Your task to perform on an android device: Go to Maps Image 0: 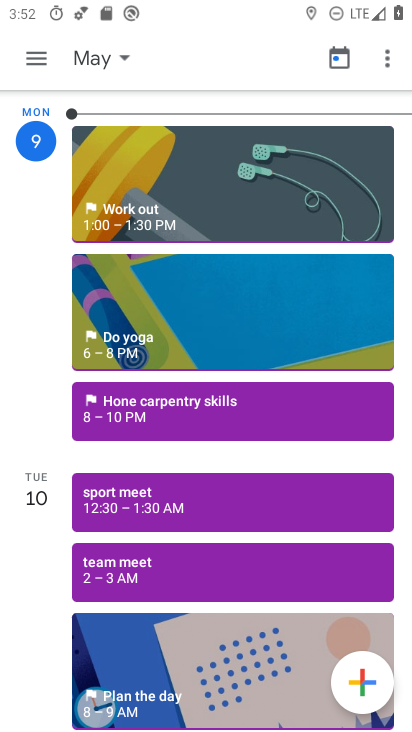
Step 0: press home button
Your task to perform on an android device: Go to Maps Image 1: 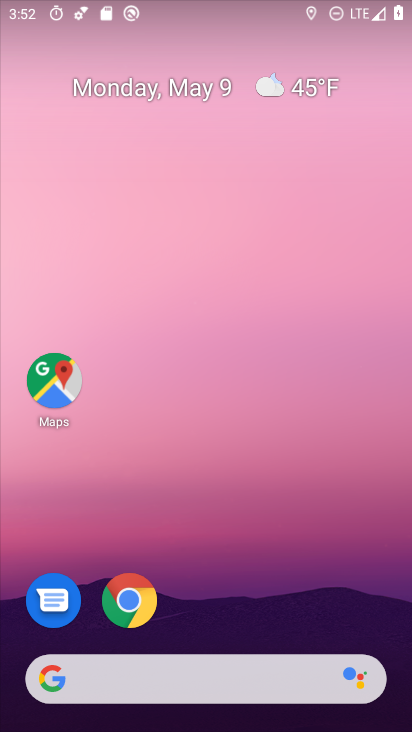
Step 1: drag from (206, 598) to (209, 47)
Your task to perform on an android device: Go to Maps Image 2: 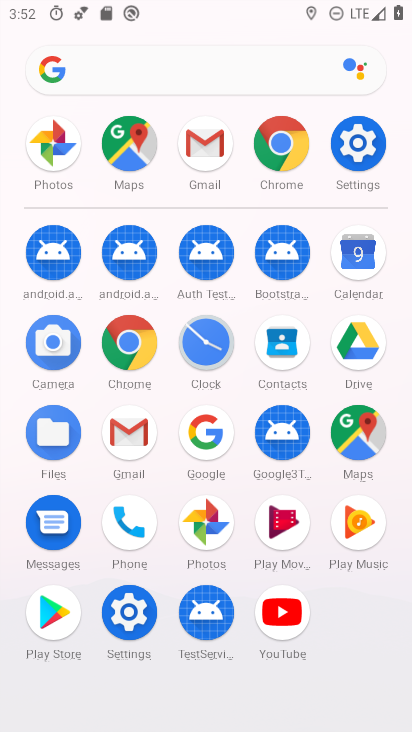
Step 2: click (368, 434)
Your task to perform on an android device: Go to Maps Image 3: 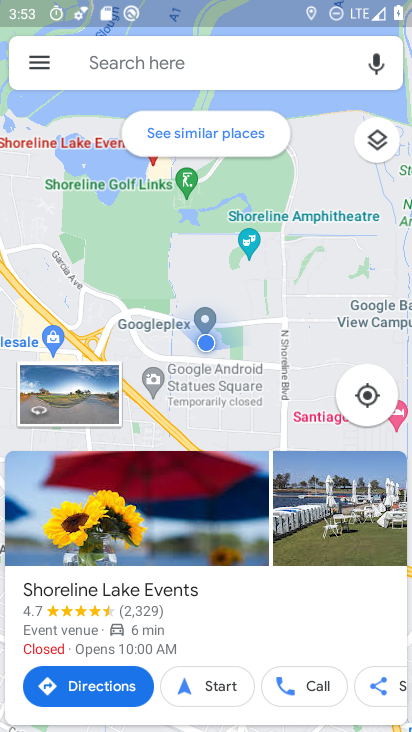
Step 3: task complete